Your task to perform on an android device: turn off javascript in the chrome app Image 0: 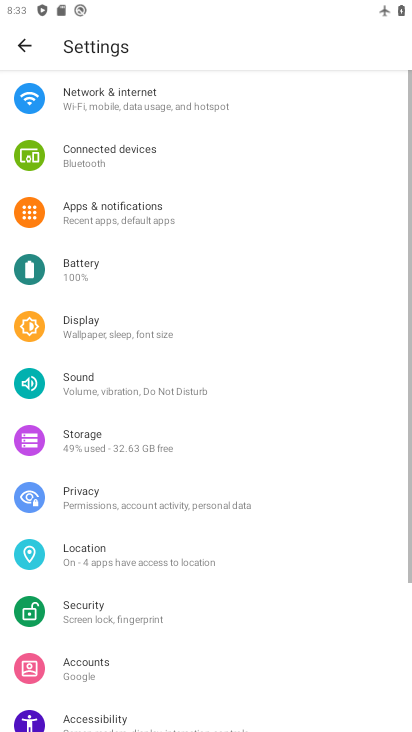
Step 0: press home button
Your task to perform on an android device: turn off javascript in the chrome app Image 1: 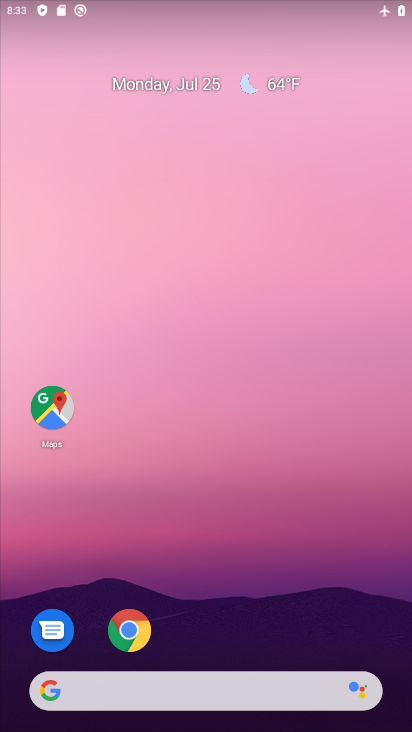
Step 1: click (131, 632)
Your task to perform on an android device: turn off javascript in the chrome app Image 2: 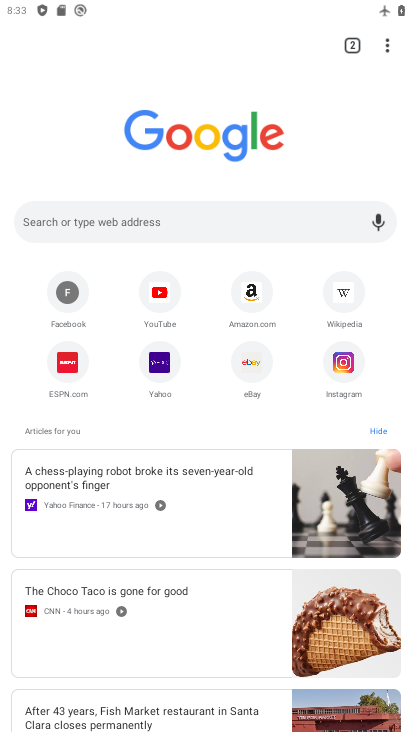
Step 2: click (383, 50)
Your task to perform on an android device: turn off javascript in the chrome app Image 3: 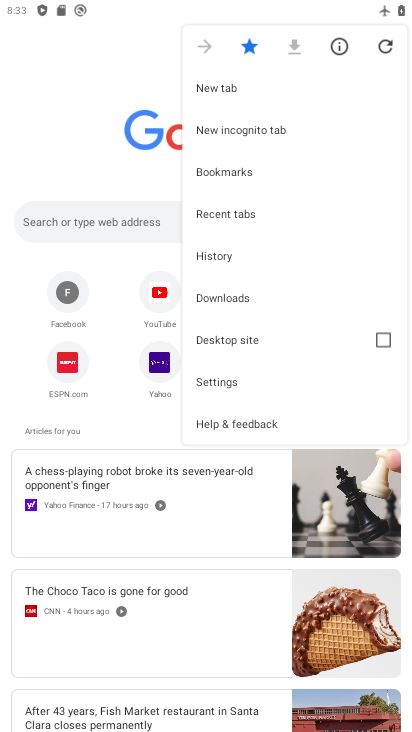
Step 3: click (219, 385)
Your task to perform on an android device: turn off javascript in the chrome app Image 4: 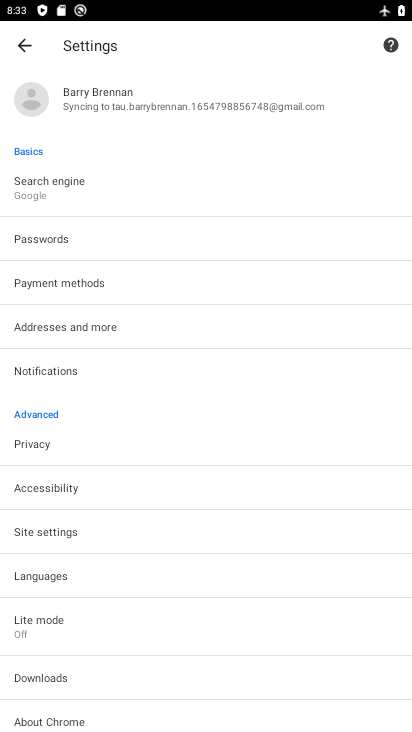
Step 4: click (47, 524)
Your task to perform on an android device: turn off javascript in the chrome app Image 5: 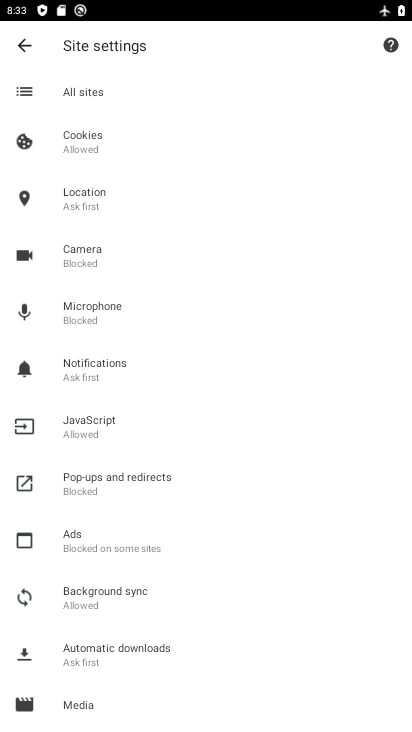
Step 5: click (77, 418)
Your task to perform on an android device: turn off javascript in the chrome app Image 6: 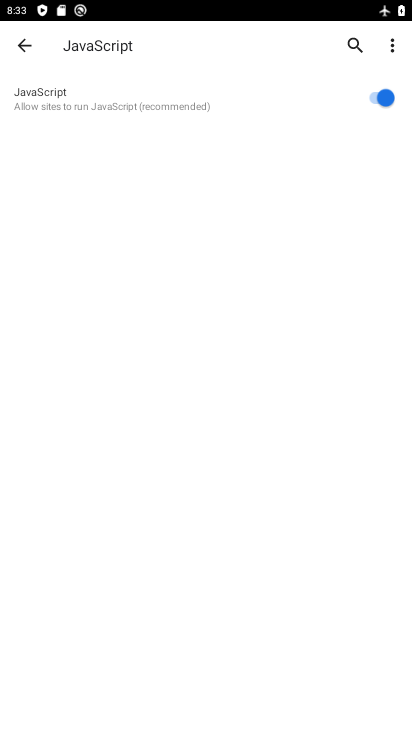
Step 6: click (369, 97)
Your task to perform on an android device: turn off javascript in the chrome app Image 7: 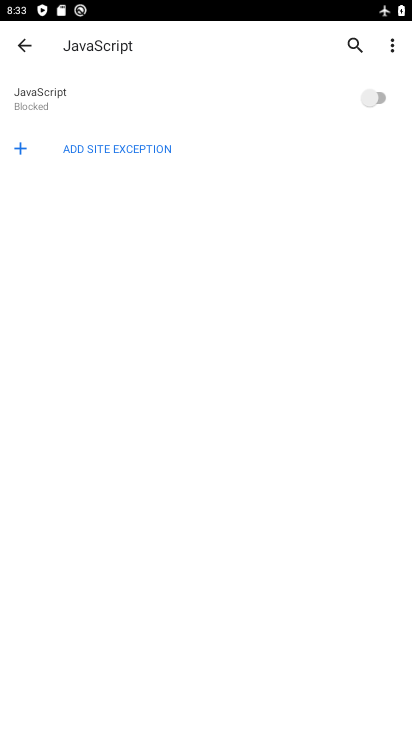
Step 7: task complete